Your task to perform on an android device: What's the weather going to be tomorrow? Image 0: 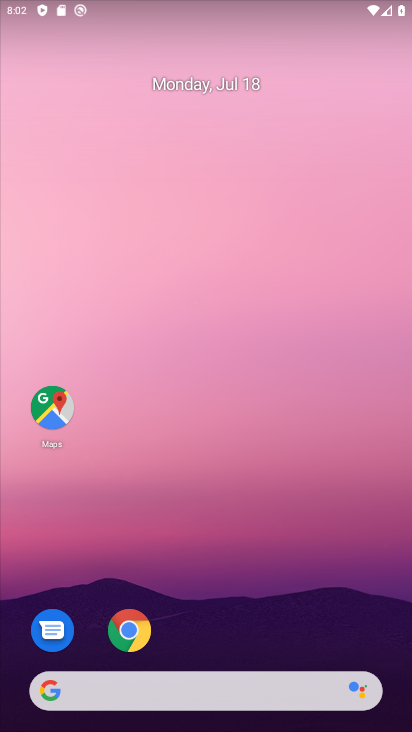
Step 0: click (198, 223)
Your task to perform on an android device: What's the weather going to be tomorrow? Image 1: 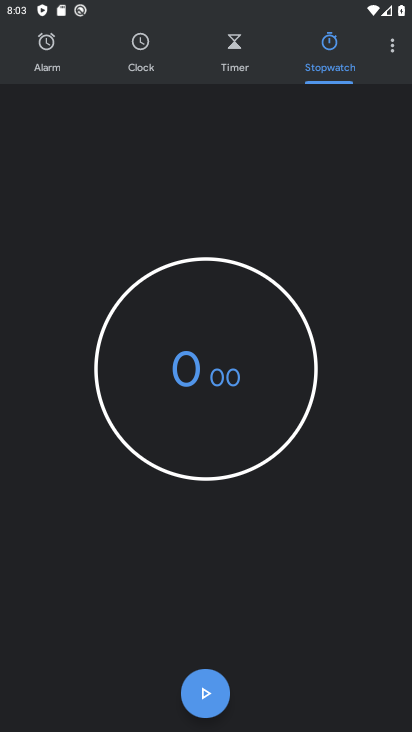
Step 1: press home button
Your task to perform on an android device: What's the weather going to be tomorrow? Image 2: 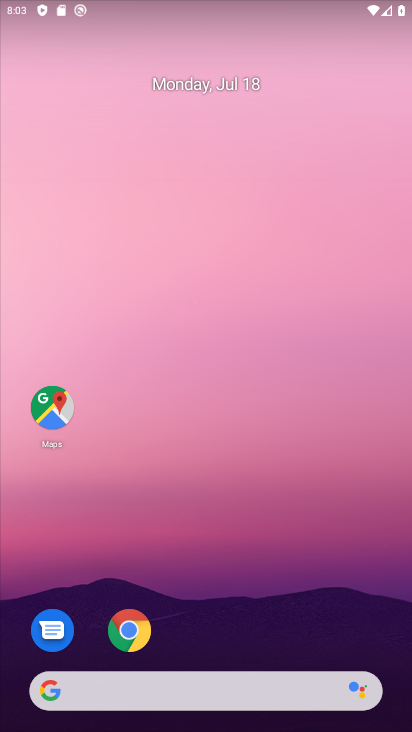
Step 2: drag from (205, 621) to (250, 179)
Your task to perform on an android device: What's the weather going to be tomorrow? Image 3: 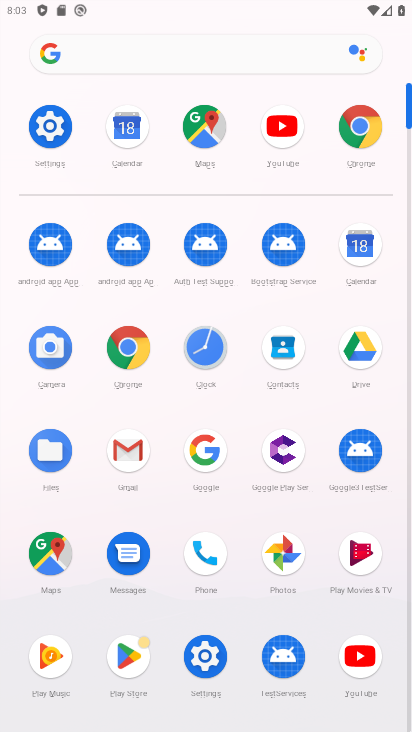
Step 3: click (364, 145)
Your task to perform on an android device: What's the weather going to be tomorrow? Image 4: 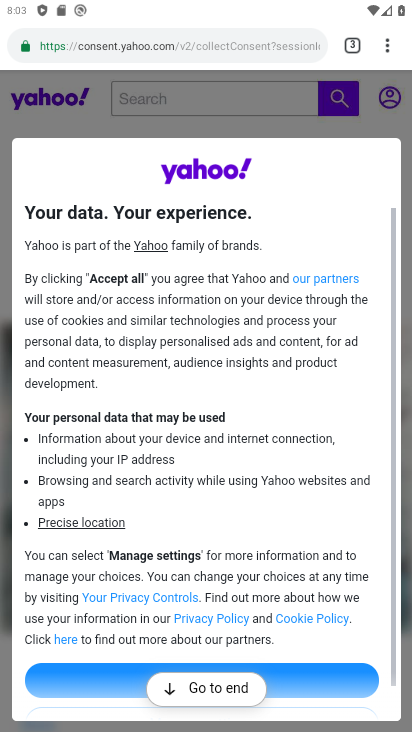
Step 4: click (388, 46)
Your task to perform on an android device: What's the weather going to be tomorrow? Image 5: 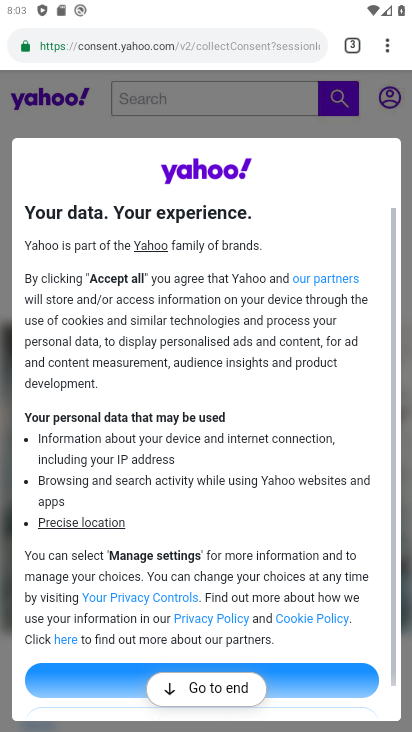
Step 5: click (388, 46)
Your task to perform on an android device: What's the weather going to be tomorrow? Image 6: 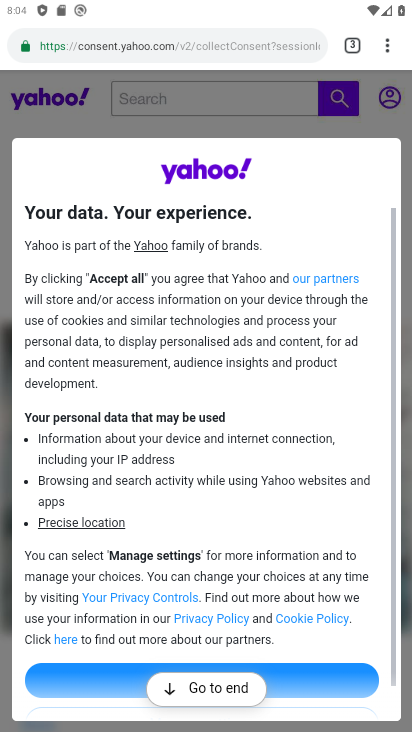
Step 6: click (384, 37)
Your task to perform on an android device: What's the weather going to be tomorrow? Image 7: 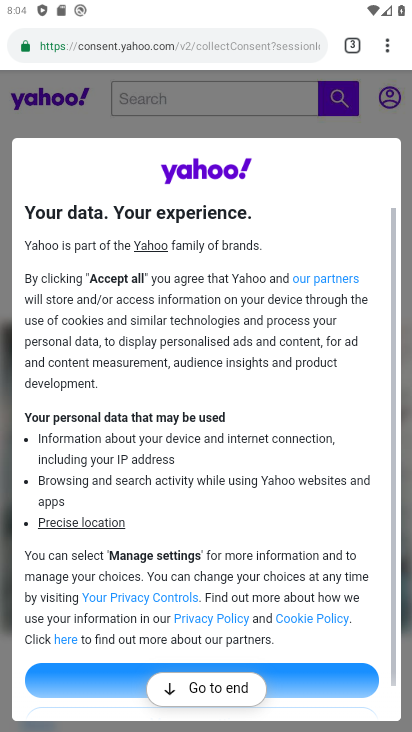
Step 7: click (393, 42)
Your task to perform on an android device: What's the weather going to be tomorrow? Image 8: 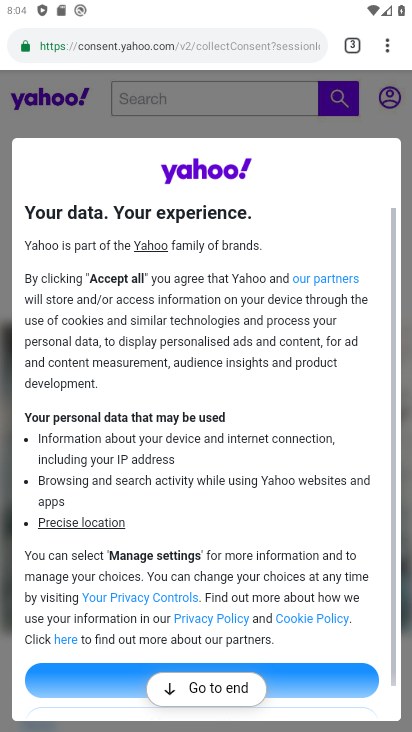
Step 8: click (389, 56)
Your task to perform on an android device: What's the weather going to be tomorrow? Image 9: 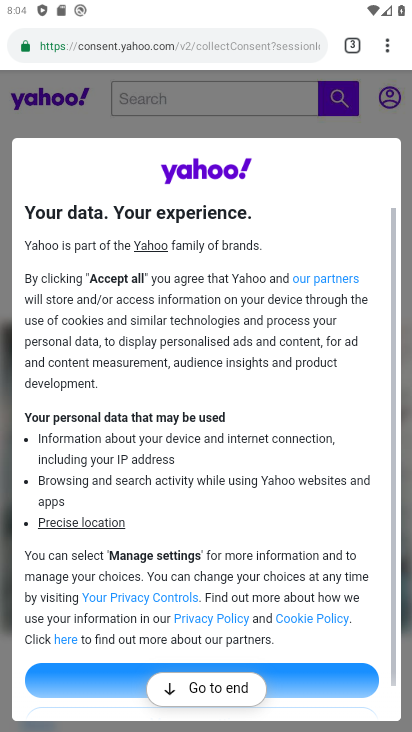
Step 9: click (389, 48)
Your task to perform on an android device: What's the weather going to be tomorrow? Image 10: 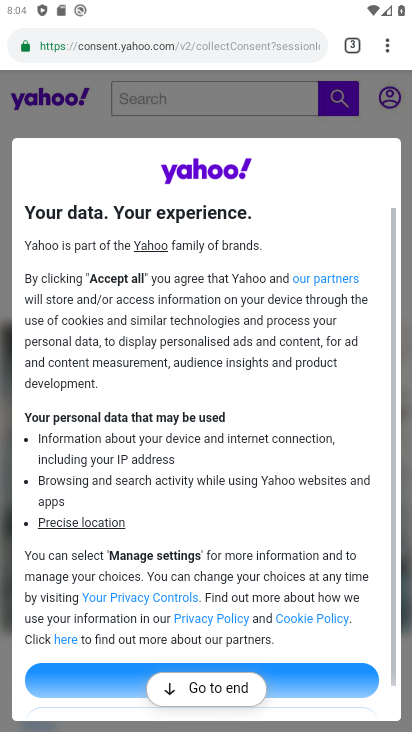
Step 10: click (389, 40)
Your task to perform on an android device: What's the weather going to be tomorrow? Image 11: 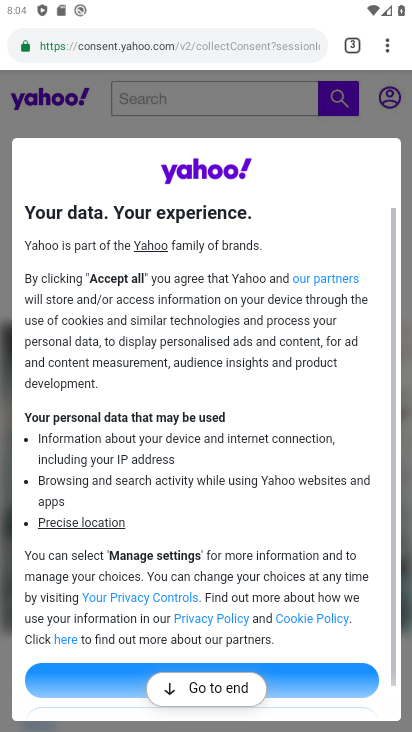
Step 11: click (391, 46)
Your task to perform on an android device: What's the weather going to be tomorrow? Image 12: 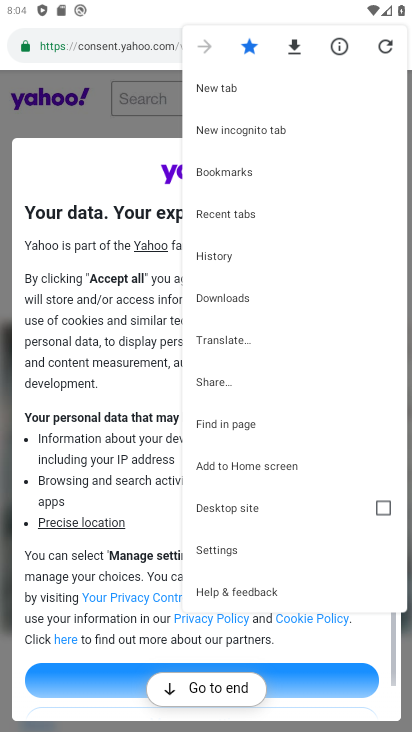
Step 12: click (247, 88)
Your task to perform on an android device: What's the weather going to be tomorrow? Image 13: 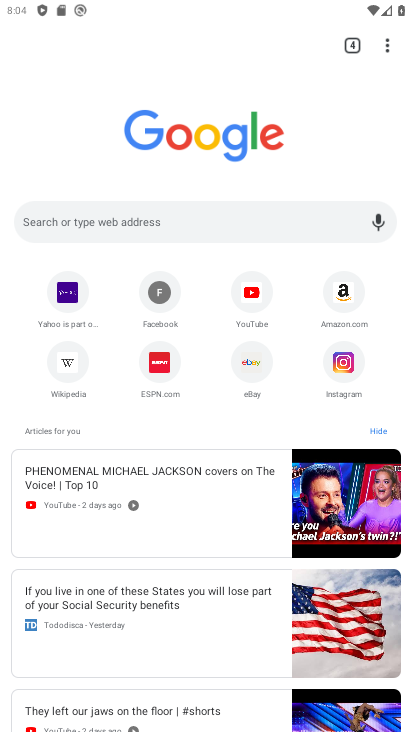
Step 13: click (223, 226)
Your task to perform on an android device: What's the weather going to be tomorrow? Image 14: 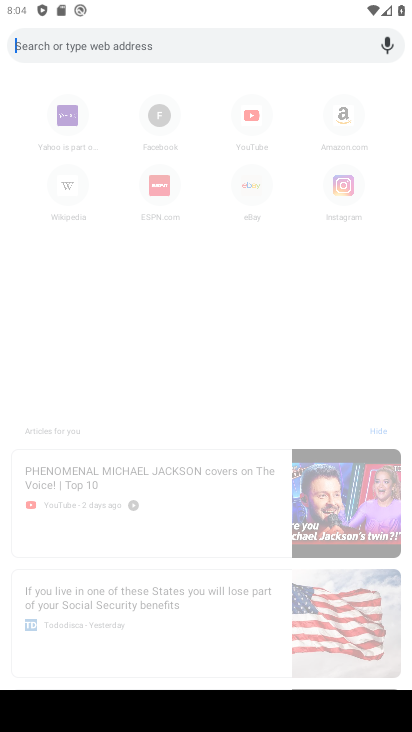
Step 14: type "What's the weather going to be tomorrow "
Your task to perform on an android device: What's the weather going to be tomorrow? Image 15: 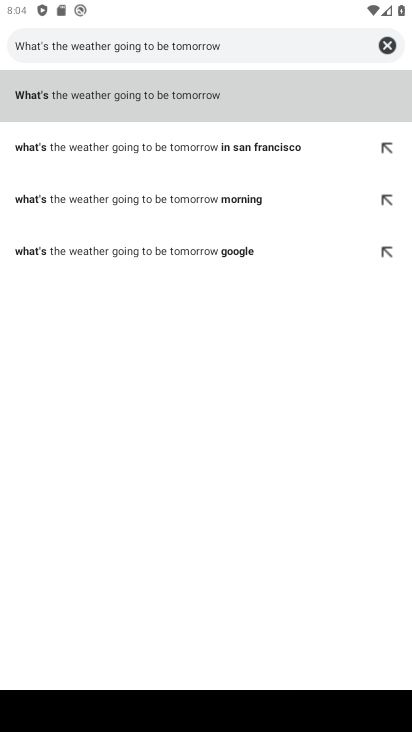
Step 15: click (304, 102)
Your task to perform on an android device: What's the weather going to be tomorrow? Image 16: 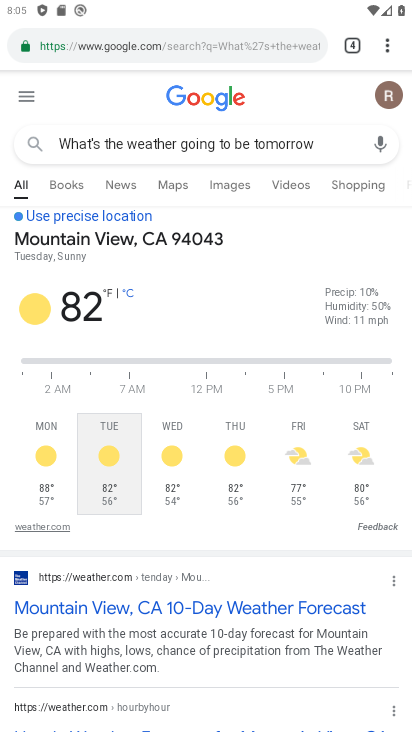
Step 16: task complete